Your task to perform on an android device: Open internet settings Image 0: 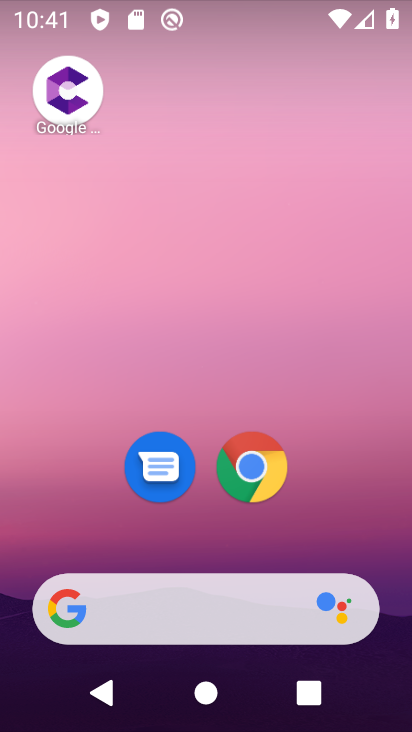
Step 0: drag from (351, 543) to (278, 17)
Your task to perform on an android device: Open internet settings Image 1: 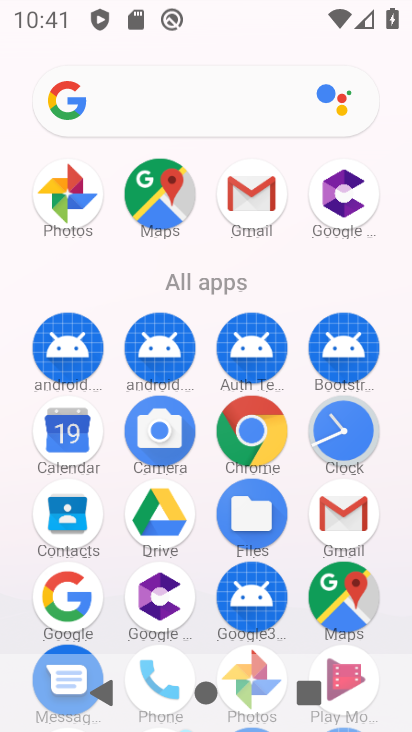
Step 1: drag from (405, 483) to (409, 413)
Your task to perform on an android device: Open internet settings Image 2: 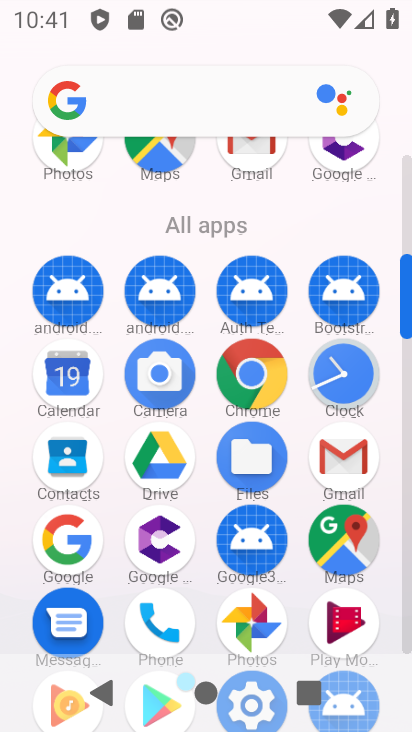
Step 2: drag from (400, 558) to (405, 498)
Your task to perform on an android device: Open internet settings Image 3: 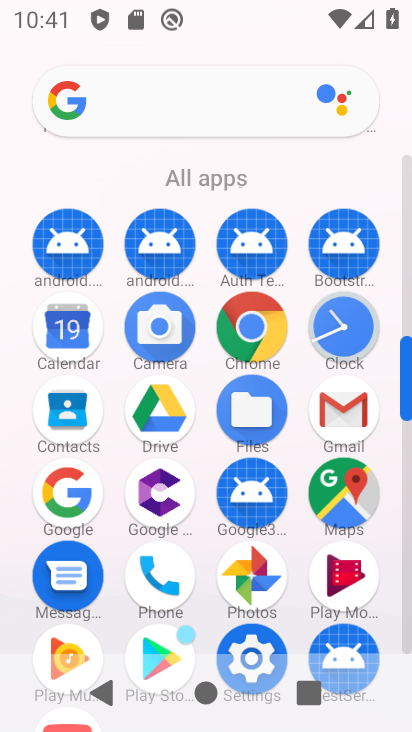
Step 3: click (259, 642)
Your task to perform on an android device: Open internet settings Image 4: 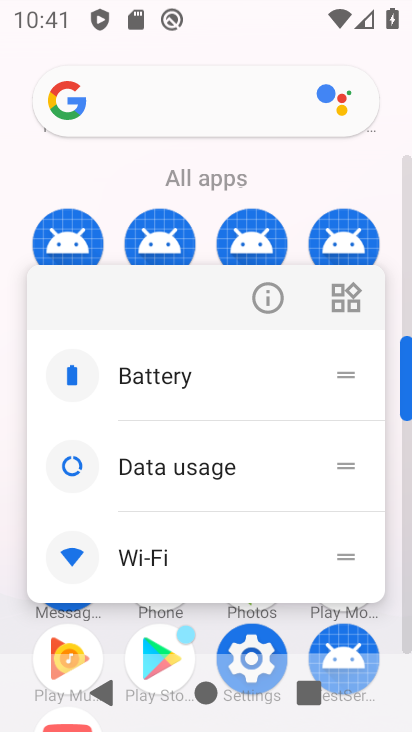
Step 4: click (259, 642)
Your task to perform on an android device: Open internet settings Image 5: 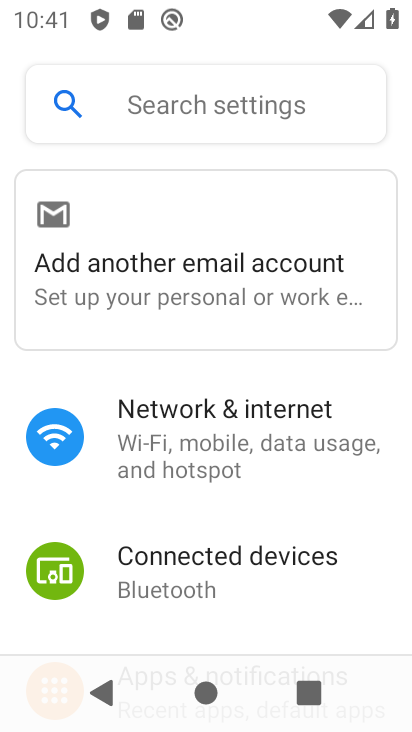
Step 5: click (184, 441)
Your task to perform on an android device: Open internet settings Image 6: 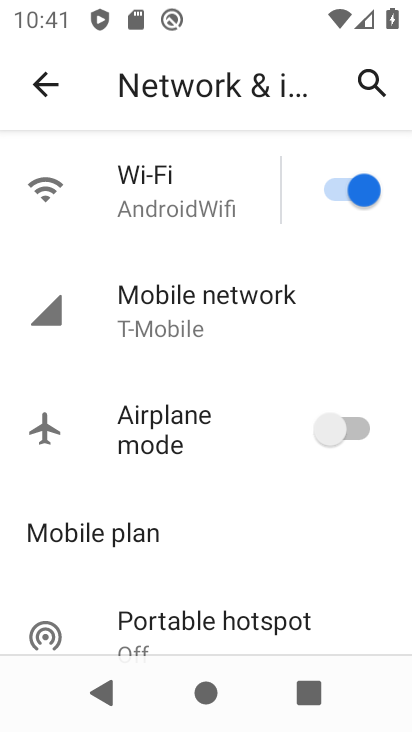
Step 6: task complete